Your task to perform on an android device: Open Amazon Image 0: 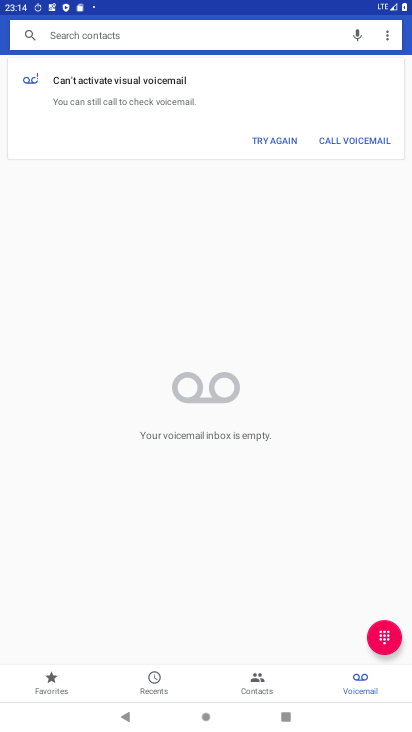
Step 0: press home button
Your task to perform on an android device: Open Amazon Image 1: 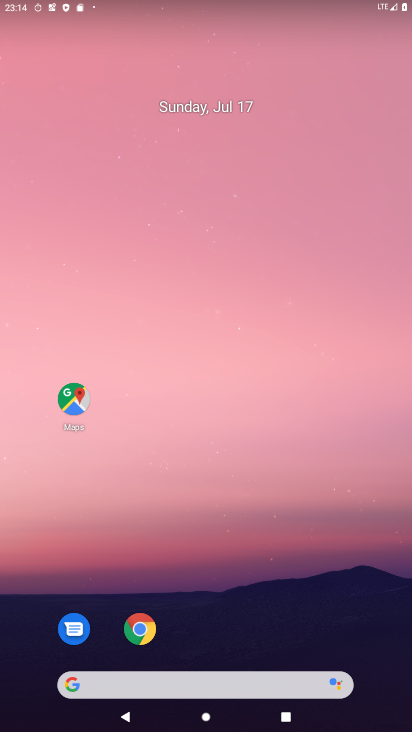
Step 1: drag from (222, 729) to (226, 60)
Your task to perform on an android device: Open Amazon Image 2: 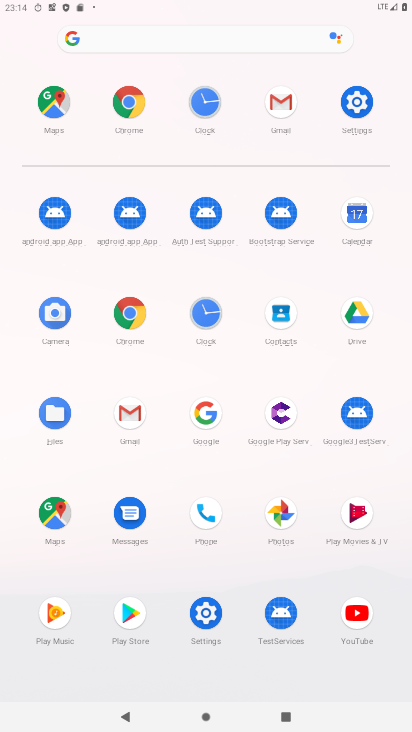
Step 2: click (124, 101)
Your task to perform on an android device: Open Amazon Image 3: 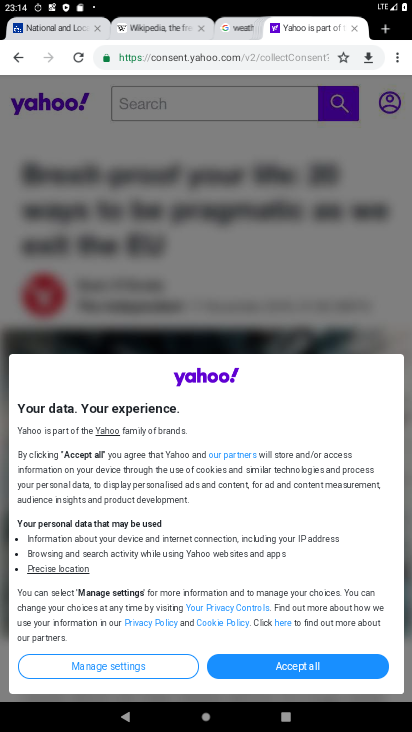
Step 3: click (399, 58)
Your task to perform on an android device: Open Amazon Image 4: 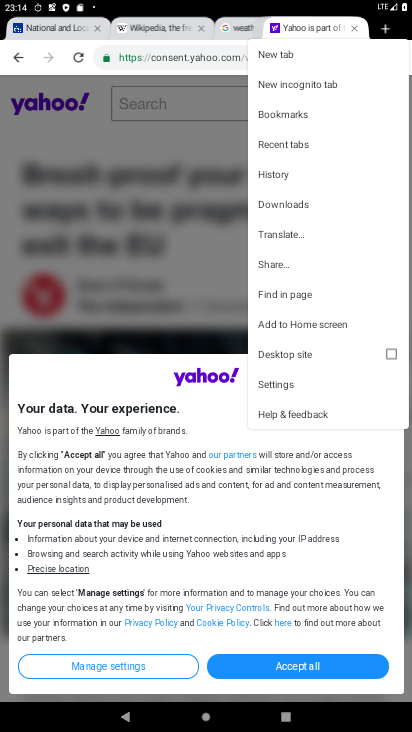
Step 4: click (276, 53)
Your task to perform on an android device: Open Amazon Image 5: 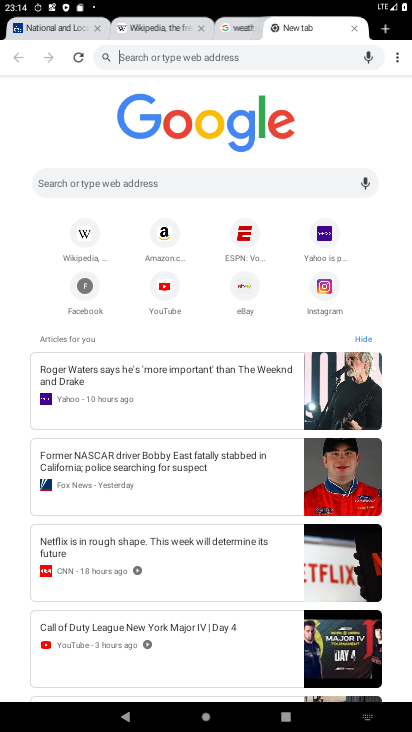
Step 5: click (160, 243)
Your task to perform on an android device: Open Amazon Image 6: 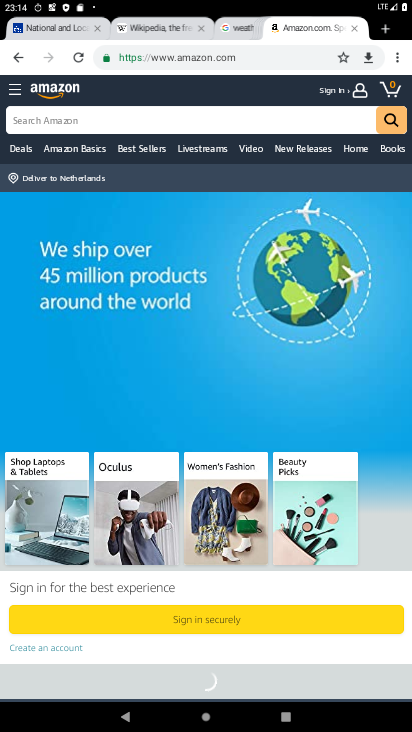
Step 6: task complete